Your task to perform on an android device: open the mobile data screen to see how much data has been used Image 0: 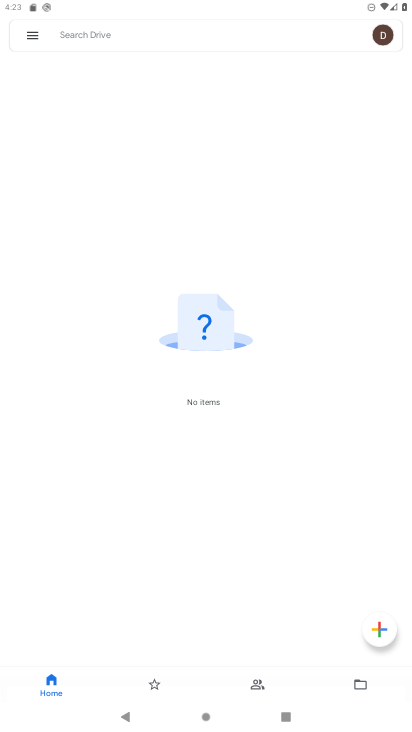
Step 0: press home button
Your task to perform on an android device: open the mobile data screen to see how much data has been used Image 1: 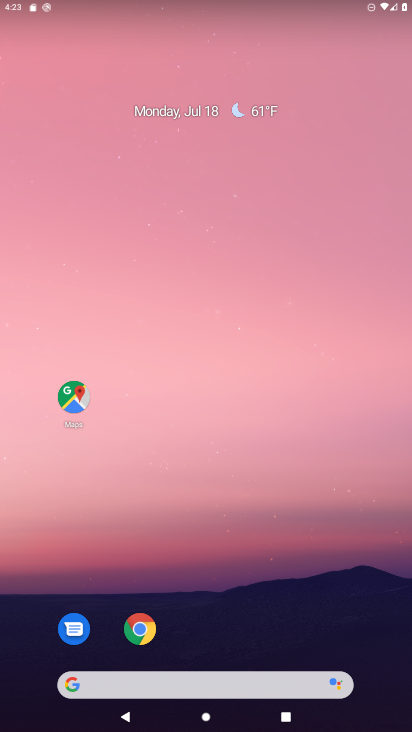
Step 1: drag from (190, 647) to (178, 159)
Your task to perform on an android device: open the mobile data screen to see how much data has been used Image 2: 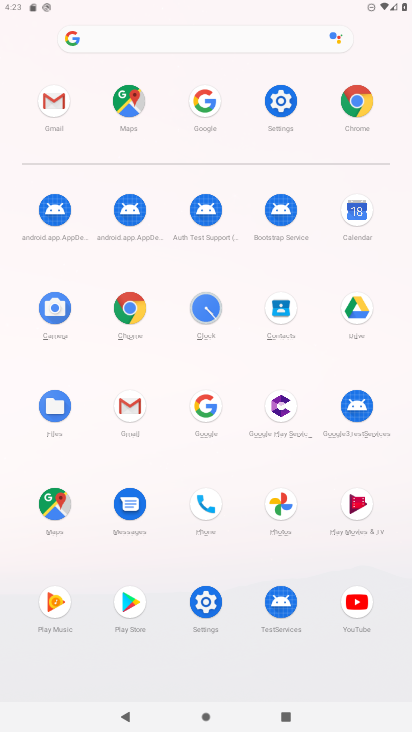
Step 2: click (279, 104)
Your task to perform on an android device: open the mobile data screen to see how much data has been used Image 3: 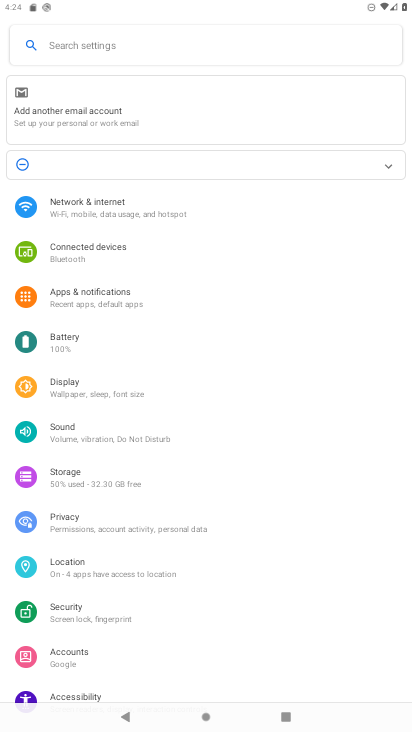
Step 3: click (85, 204)
Your task to perform on an android device: open the mobile data screen to see how much data has been used Image 4: 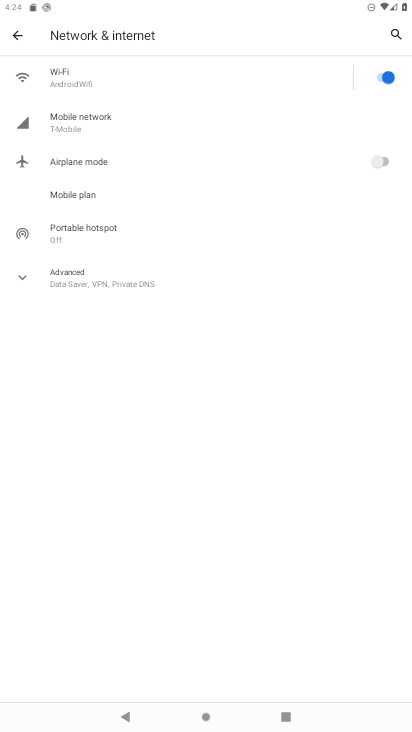
Step 4: click (82, 112)
Your task to perform on an android device: open the mobile data screen to see how much data has been used Image 5: 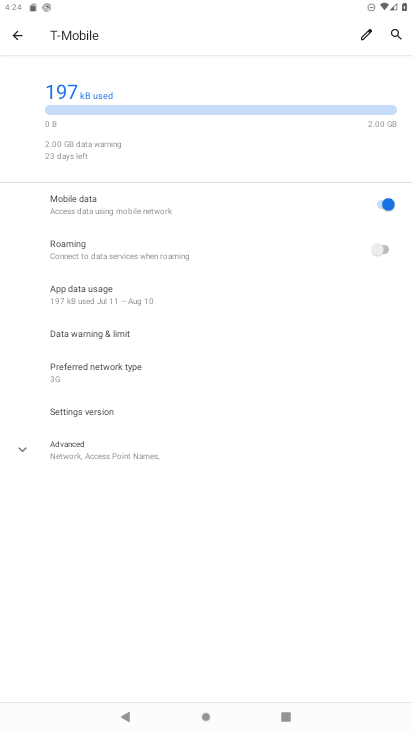
Step 5: task complete